Your task to perform on an android device: Search for sushi restaurants on Maps Image 0: 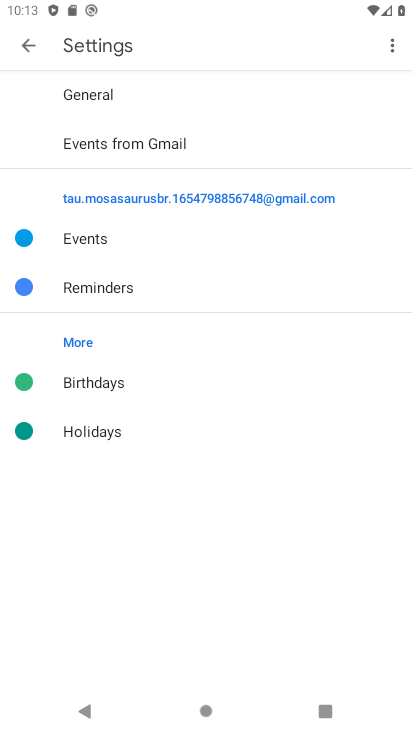
Step 0: press home button
Your task to perform on an android device: Search for sushi restaurants on Maps Image 1: 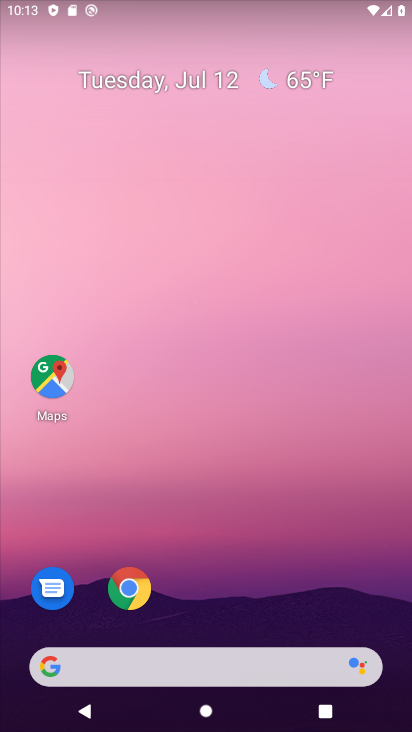
Step 1: click (59, 373)
Your task to perform on an android device: Search for sushi restaurants on Maps Image 2: 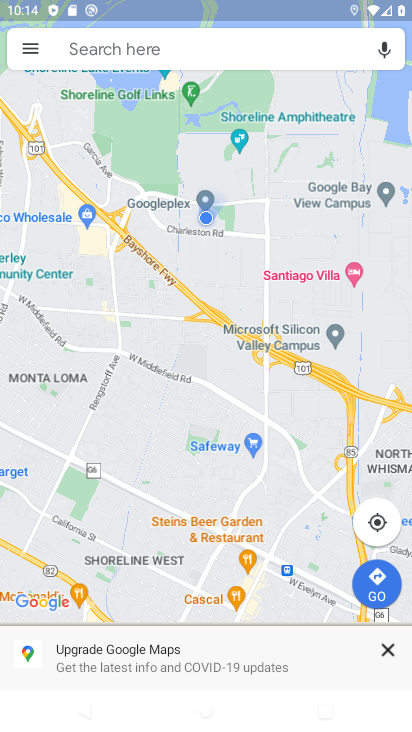
Step 2: click (77, 39)
Your task to perform on an android device: Search for sushi restaurants on Maps Image 3: 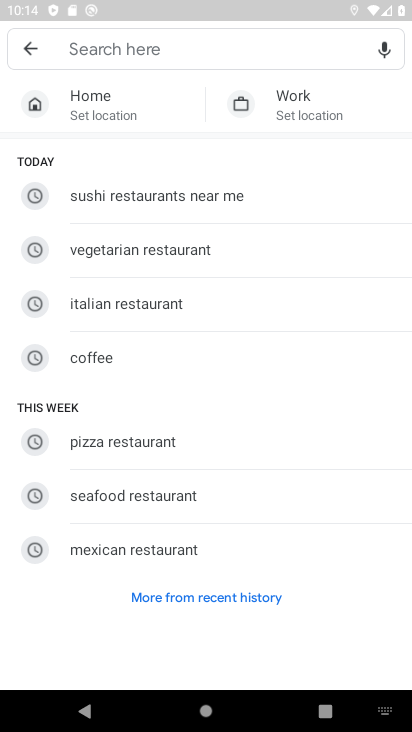
Step 3: type "sushi restaurants"
Your task to perform on an android device: Search for sushi restaurants on Maps Image 4: 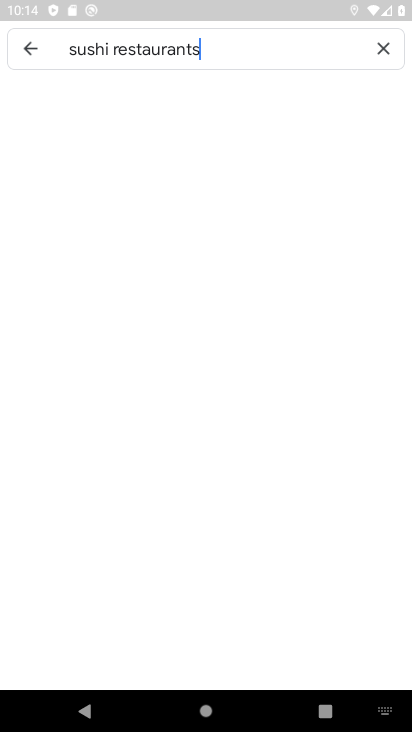
Step 4: type ""
Your task to perform on an android device: Search for sushi restaurants on Maps Image 5: 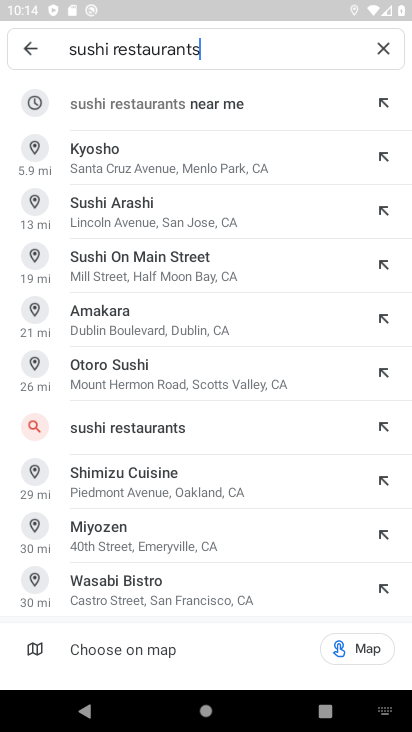
Step 5: click (121, 113)
Your task to perform on an android device: Search for sushi restaurants on Maps Image 6: 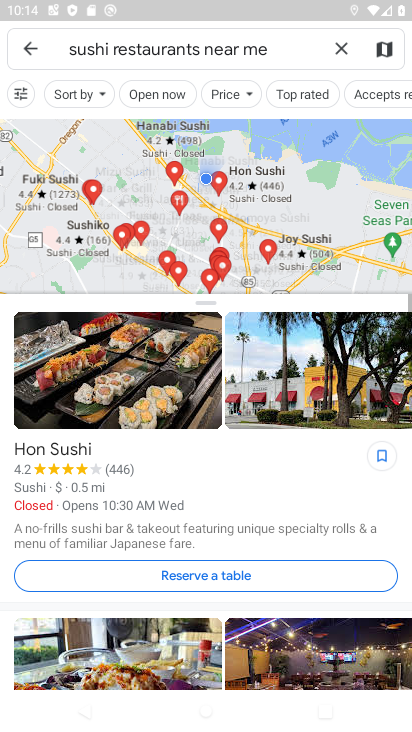
Step 6: task complete